Your task to perform on an android device: turn vacation reply on in the gmail app Image 0: 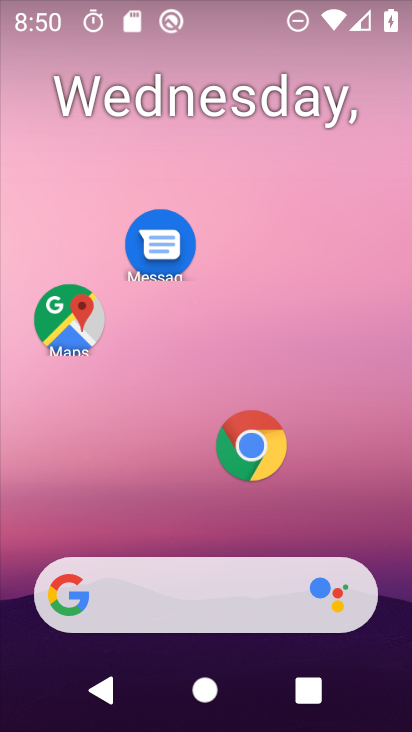
Step 0: press home button
Your task to perform on an android device: turn vacation reply on in the gmail app Image 1: 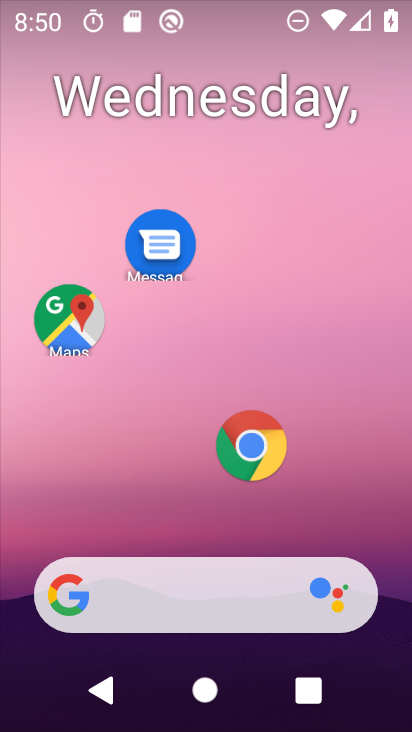
Step 1: drag from (202, 533) to (199, 54)
Your task to perform on an android device: turn vacation reply on in the gmail app Image 2: 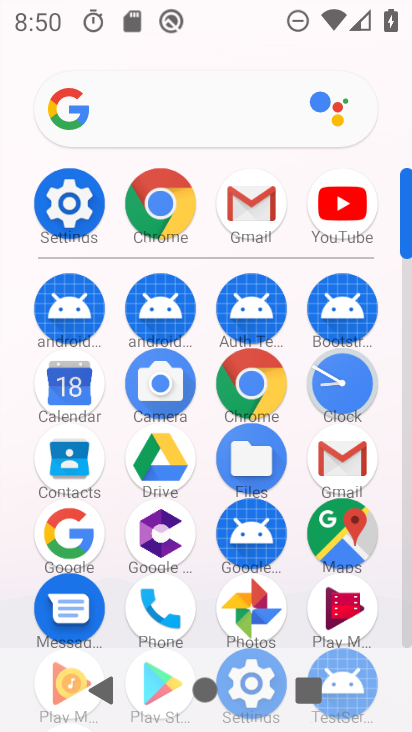
Step 2: click (349, 454)
Your task to perform on an android device: turn vacation reply on in the gmail app Image 3: 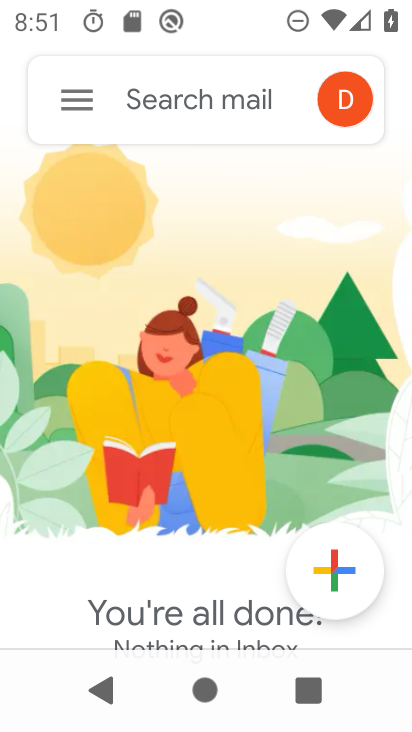
Step 3: click (74, 88)
Your task to perform on an android device: turn vacation reply on in the gmail app Image 4: 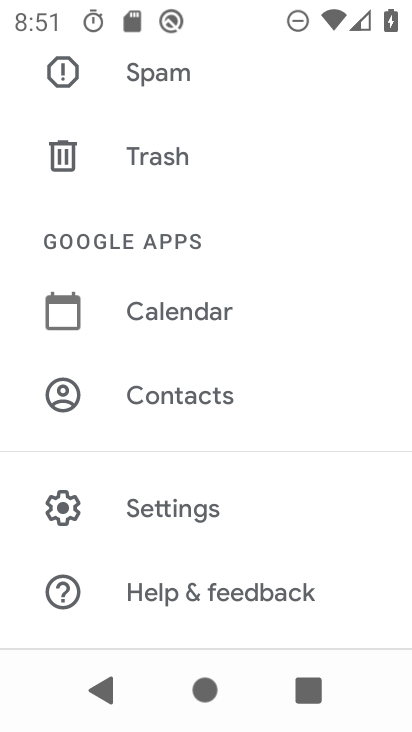
Step 4: click (198, 506)
Your task to perform on an android device: turn vacation reply on in the gmail app Image 5: 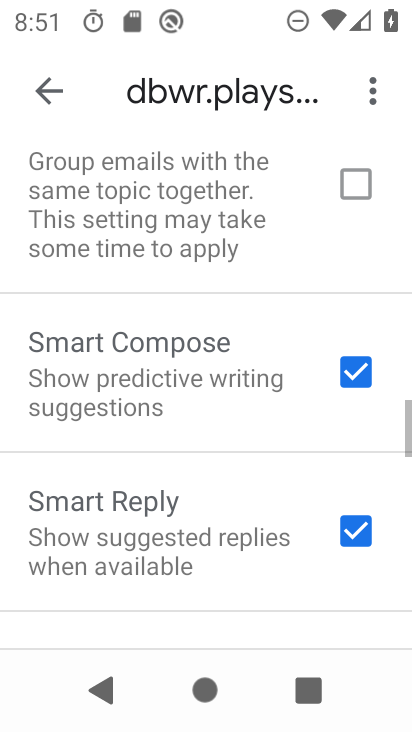
Step 5: drag from (200, 543) to (214, 184)
Your task to perform on an android device: turn vacation reply on in the gmail app Image 6: 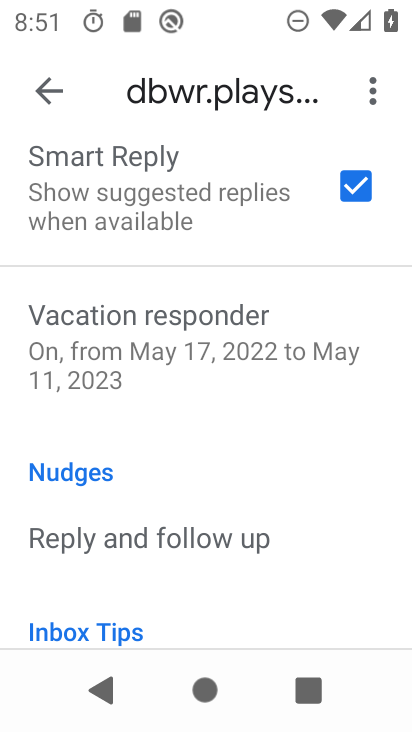
Step 6: click (154, 347)
Your task to perform on an android device: turn vacation reply on in the gmail app Image 7: 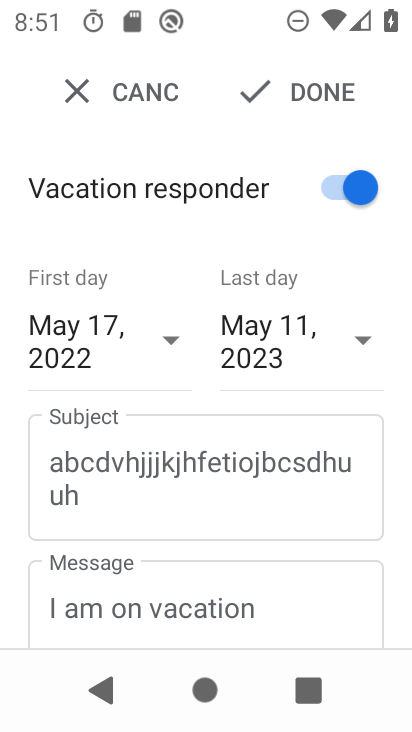
Step 7: task complete